Your task to perform on an android device: Open calendar and show me the second week of next month Image 0: 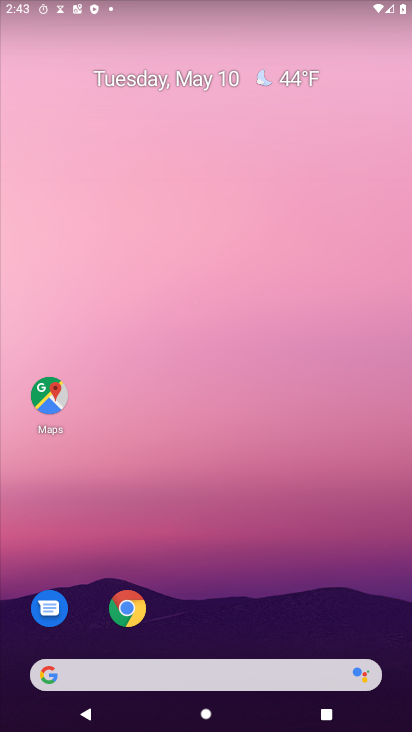
Step 0: drag from (346, 630) to (371, 0)
Your task to perform on an android device: Open calendar and show me the second week of next month Image 1: 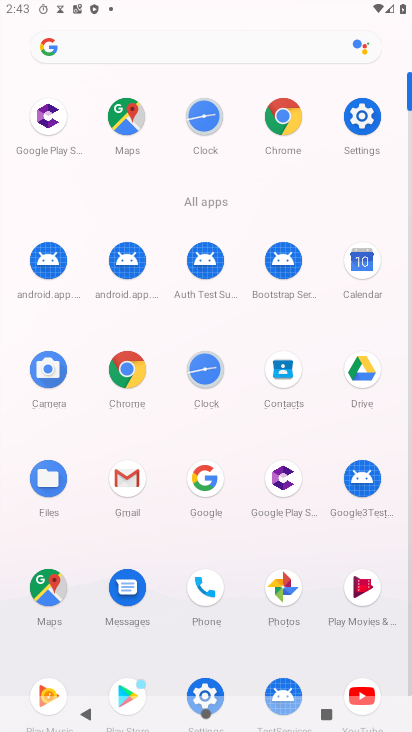
Step 1: click (360, 260)
Your task to perform on an android device: Open calendar and show me the second week of next month Image 2: 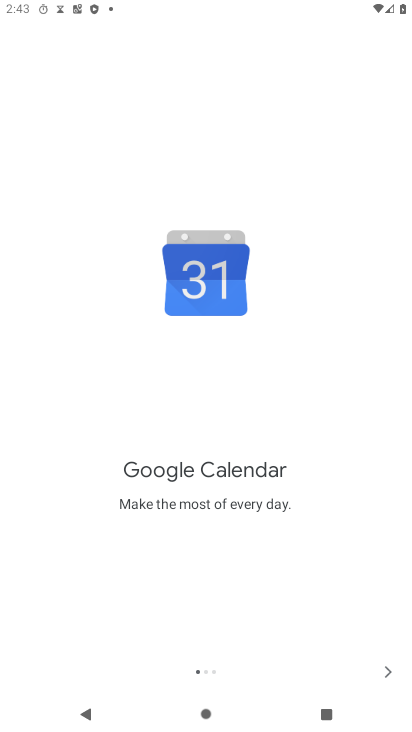
Step 2: click (387, 672)
Your task to perform on an android device: Open calendar and show me the second week of next month Image 3: 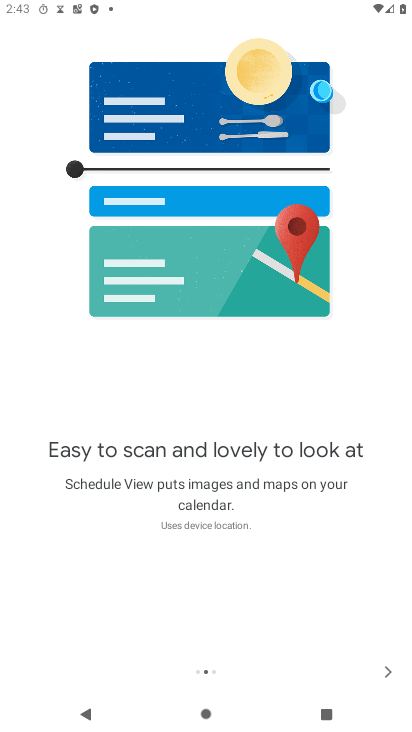
Step 3: click (387, 672)
Your task to perform on an android device: Open calendar and show me the second week of next month Image 4: 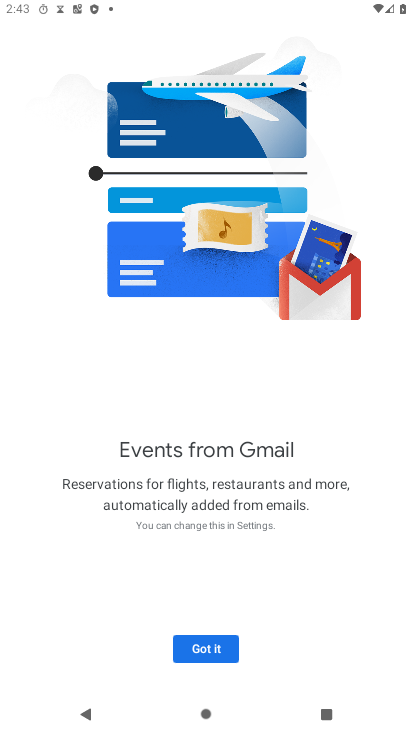
Step 4: click (195, 655)
Your task to perform on an android device: Open calendar and show me the second week of next month Image 5: 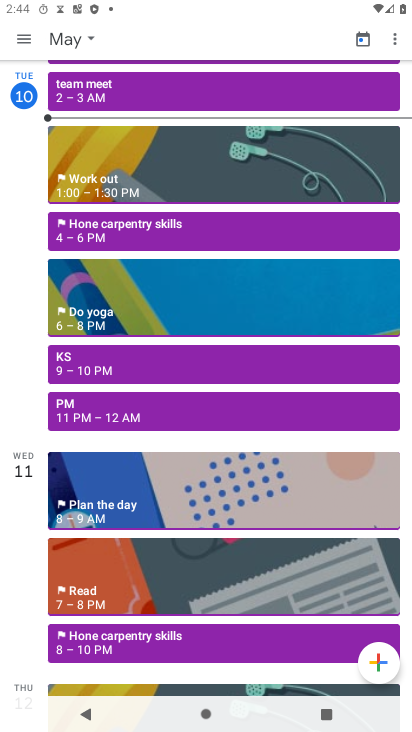
Step 5: click (92, 42)
Your task to perform on an android device: Open calendar and show me the second week of next month Image 6: 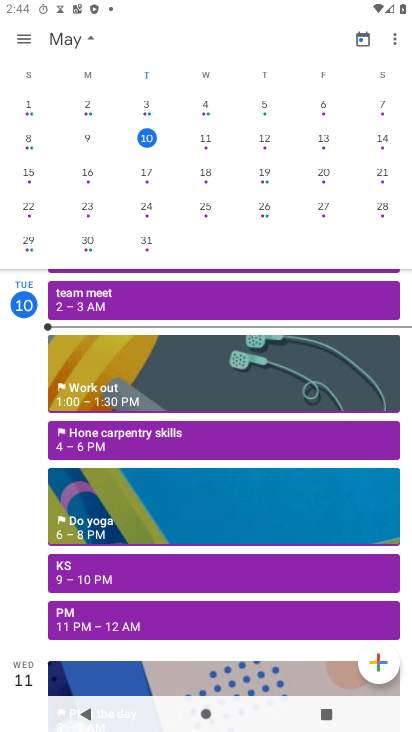
Step 6: drag from (237, 189) to (7, 167)
Your task to perform on an android device: Open calendar and show me the second week of next month Image 7: 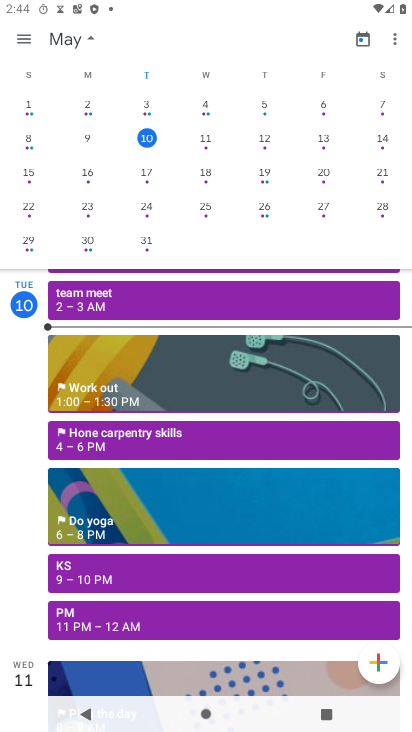
Step 7: drag from (300, 153) to (14, 143)
Your task to perform on an android device: Open calendar and show me the second week of next month Image 8: 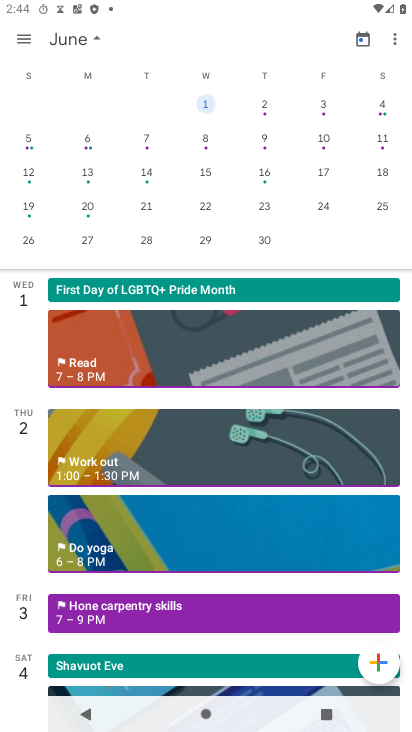
Step 8: click (21, 38)
Your task to perform on an android device: Open calendar and show me the second week of next month Image 9: 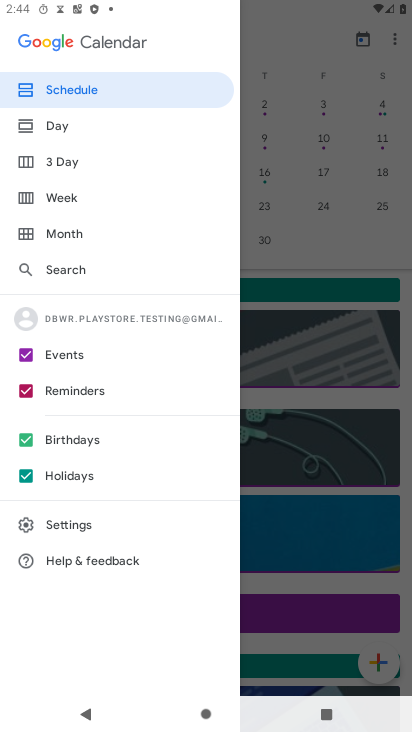
Step 9: click (56, 201)
Your task to perform on an android device: Open calendar and show me the second week of next month Image 10: 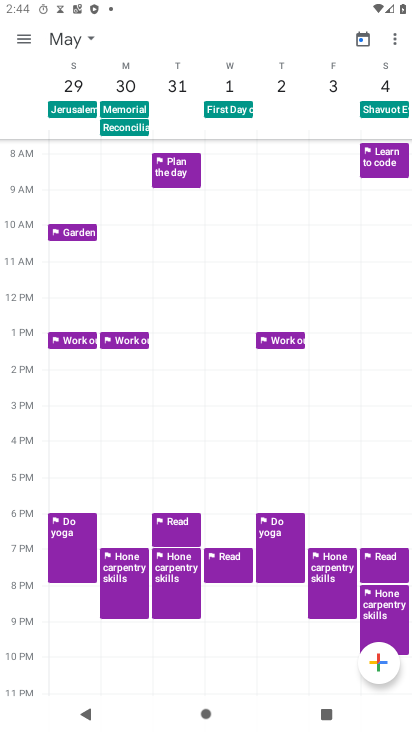
Step 10: task complete